Your task to perform on an android device: Turn on the flashlight Image 0: 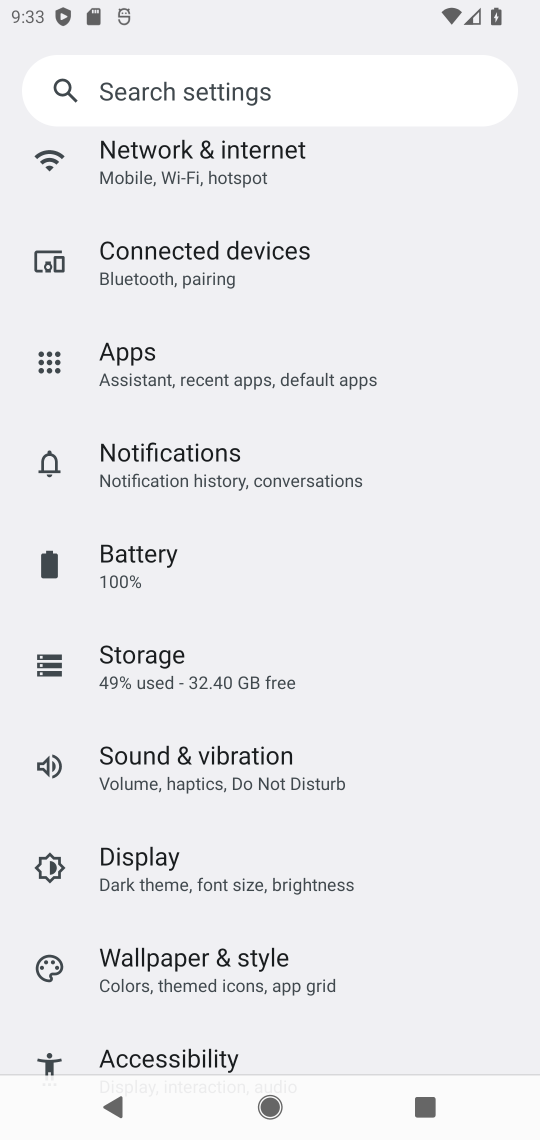
Step 0: click (506, 932)
Your task to perform on an android device: Turn on the flashlight Image 1: 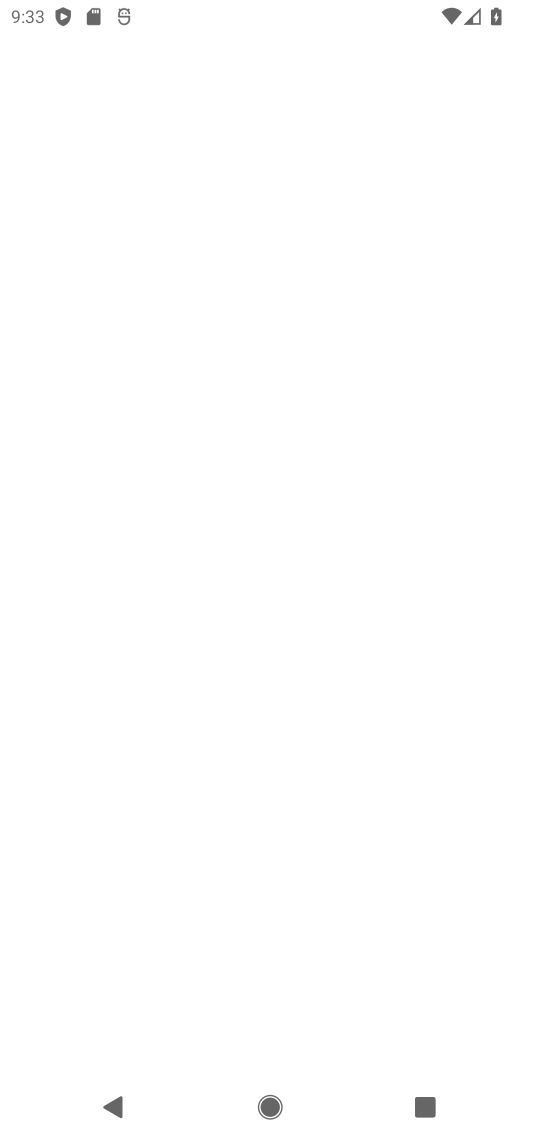
Step 1: task complete